Your task to perform on an android device: Open display settings Image 0: 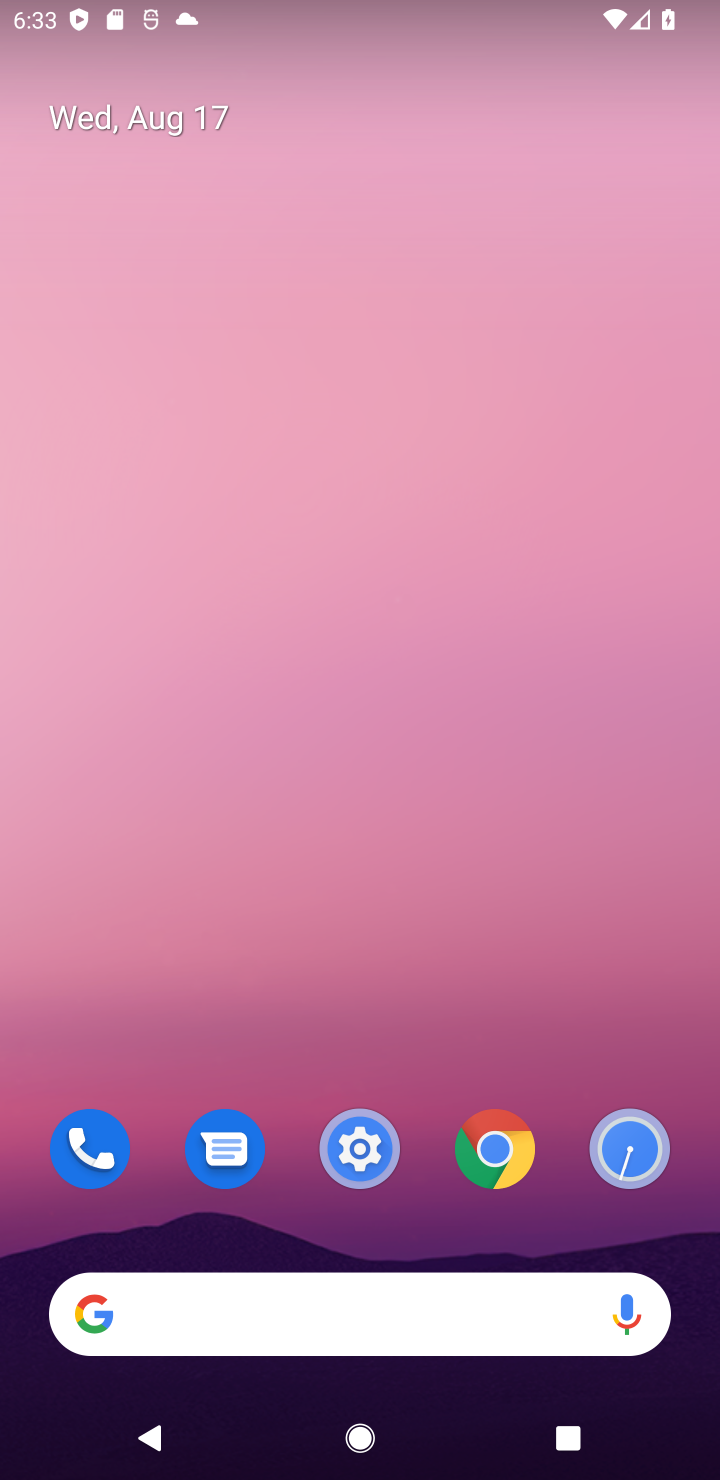
Step 0: click (352, 1147)
Your task to perform on an android device: Open display settings Image 1: 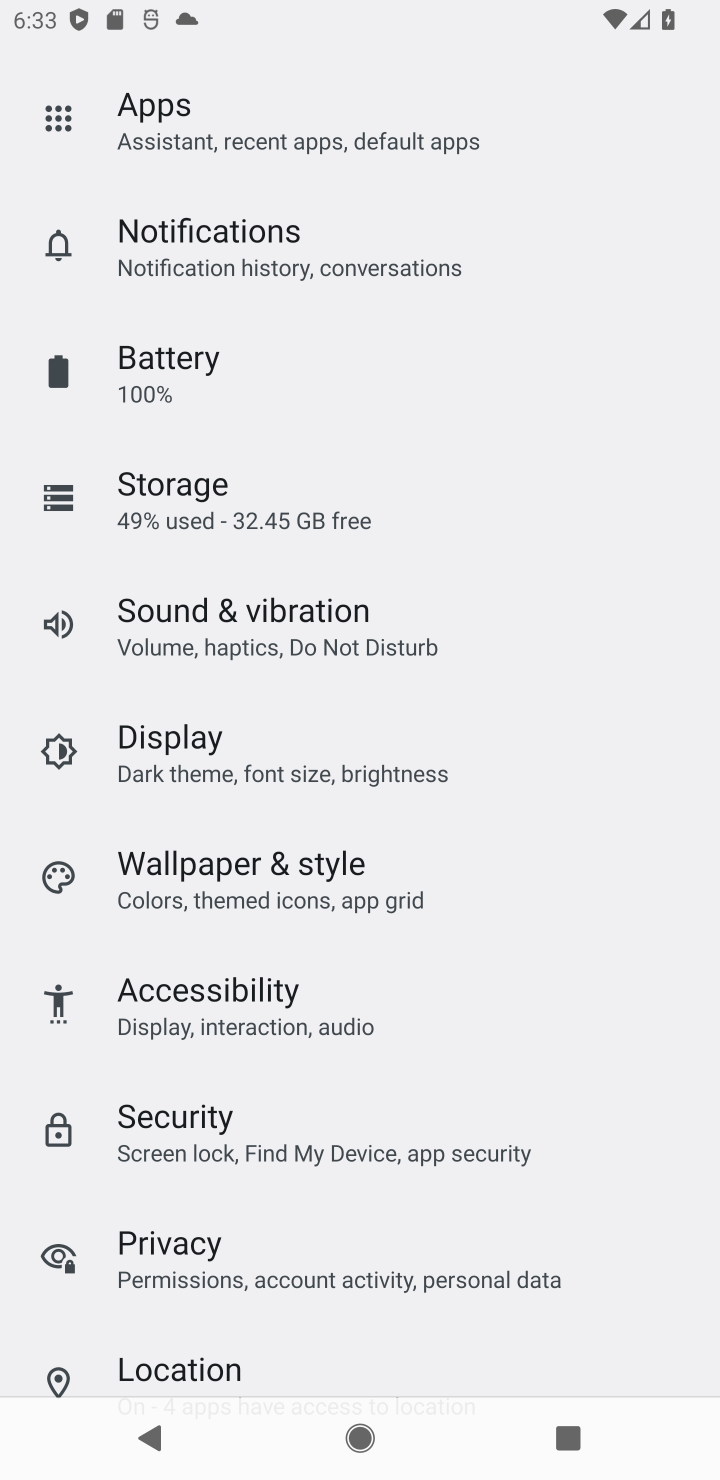
Step 1: click (159, 726)
Your task to perform on an android device: Open display settings Image 2: 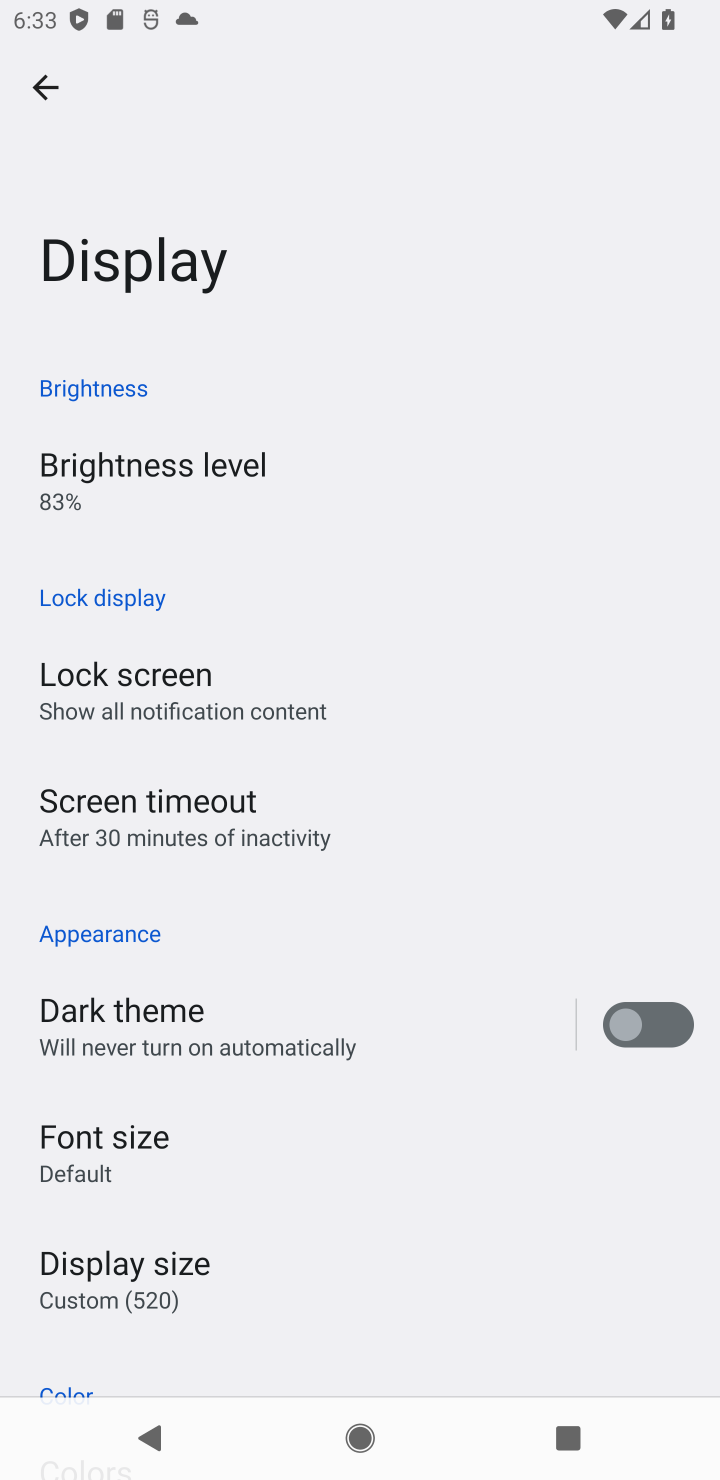
Step 2: task complete